Your task to perform on an android device: Go to Yahoo.com Image 0: 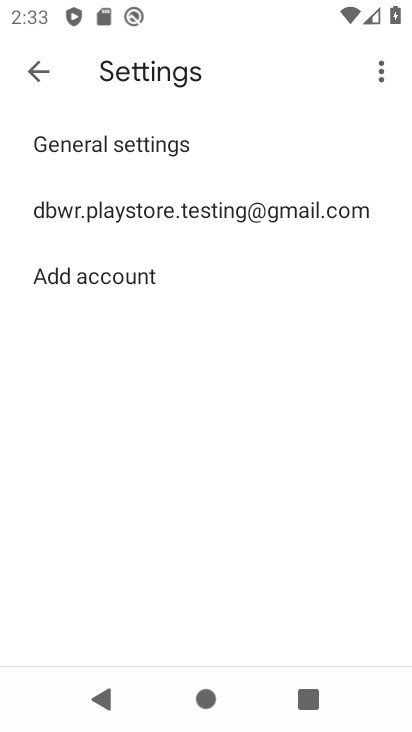
Step 0: press home button
Your task to perform on an android device: Go to Yahoo.com Image 1: 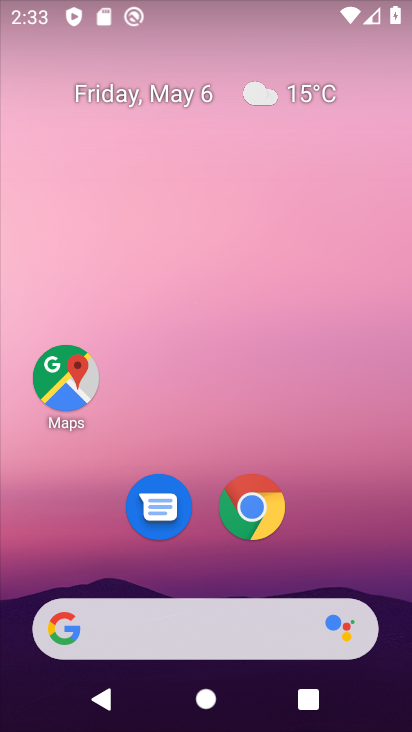
Step 1: drag from (369, 560) to (384, 138)
Your task to perform on an android device: Go to Yahoo.com Image 2: 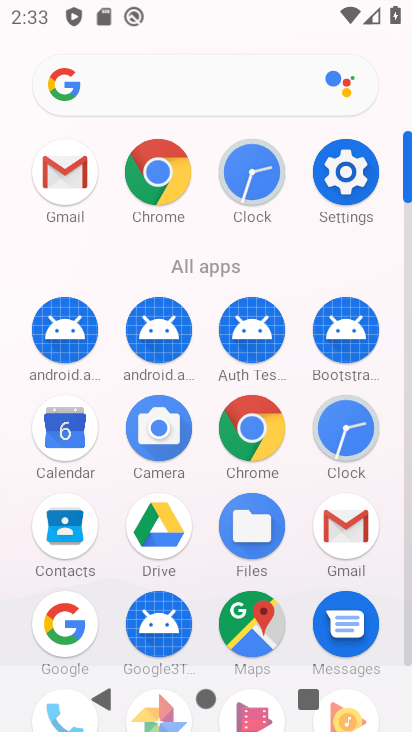
Step 2: click (256, 443)
Your task to perform on an android device: Go to Yahoo.com Image 3: 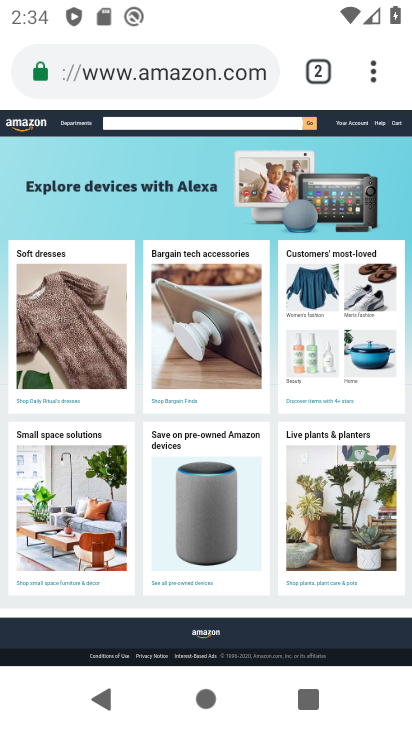
Step 3: click (224, 65)
Your task to perform on an android device: Go to Yahoo.com Image 4: 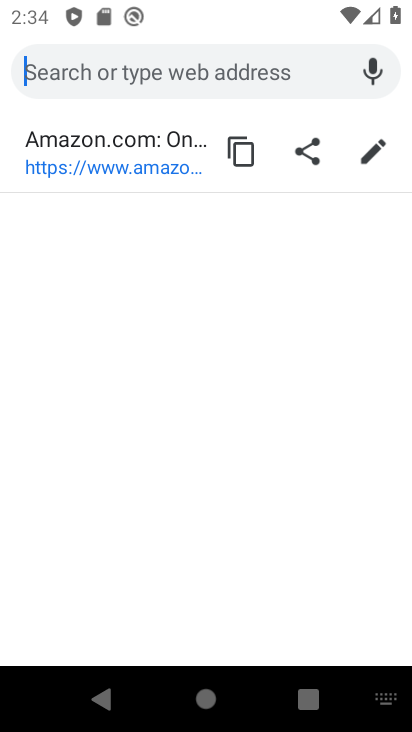
Step 4: type "yahoo.com"
Your task to perform on an android device: Go to Yahoo.com Image 5: 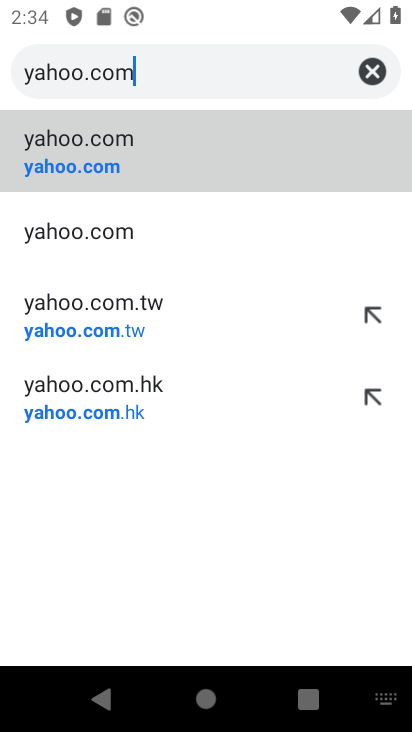
Step 5: click (164, 153)
Your task to perform on an android device: Go to Yahoo.com Image 6: 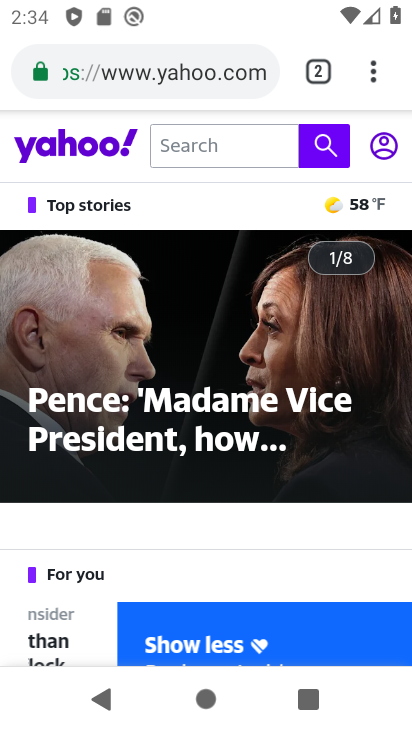
Step 6: task complete